Your task to perform on an android device: delete the emails in spam in the gmail app Image 0: 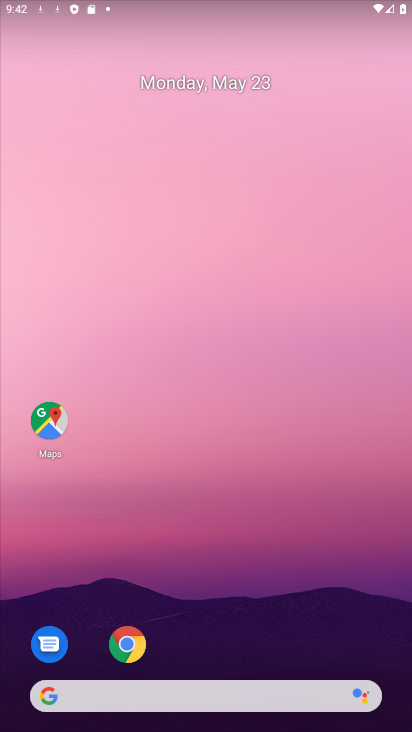
Step 0: drag from (273, 664) to (227, 438)
Your task to perform on an android device: delete the emails in spam in the gmail app Image 1: 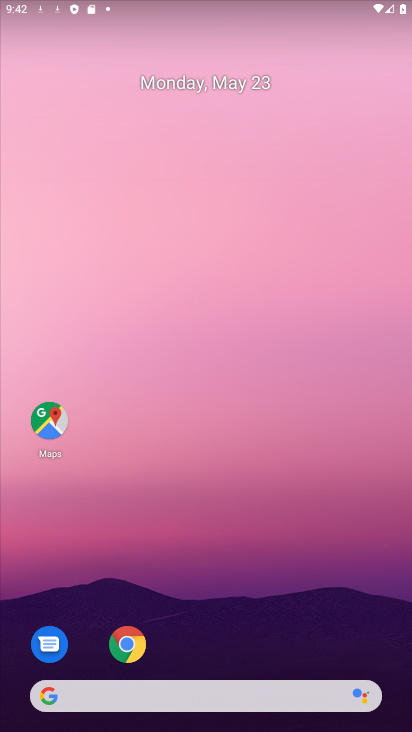
Step 1: drag from (278, 713) to (149, 24)
Your task to perform on an android device: delete the emails in spam in the gmail app Image 2: 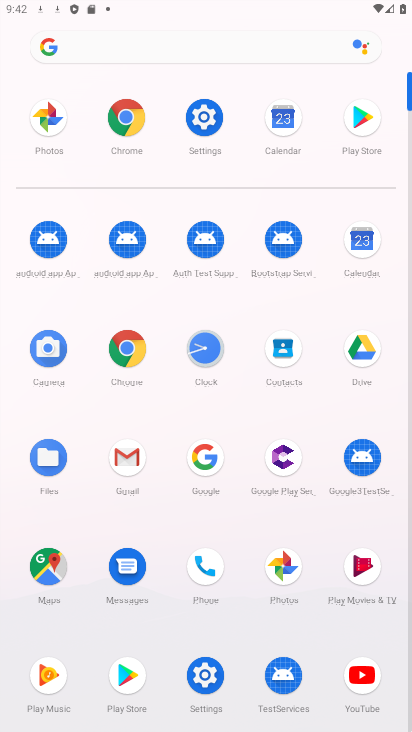
Step 2: click (145, 452)
Your task to perform on an android device: delete the emails in spam in the gmail app Image 3: 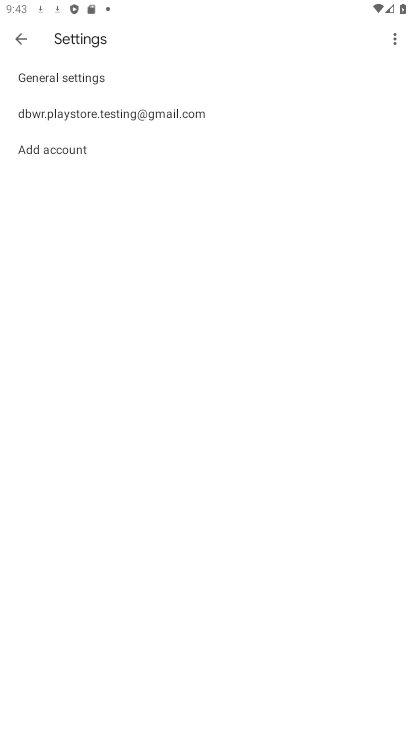
Step 3: click (78, 124)
Your task to perform on an android device: delete the emails in spam in the gmail app Image 4: 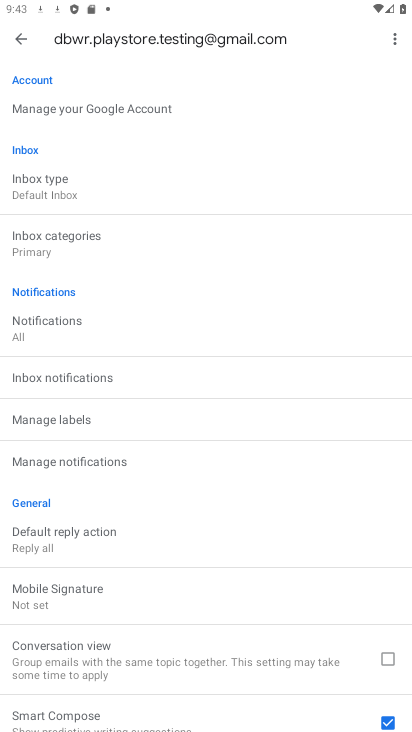
Step 4: click (10, 35)
Your task to perform on an android device: delete the emails in spam in the gmail app Image 5: 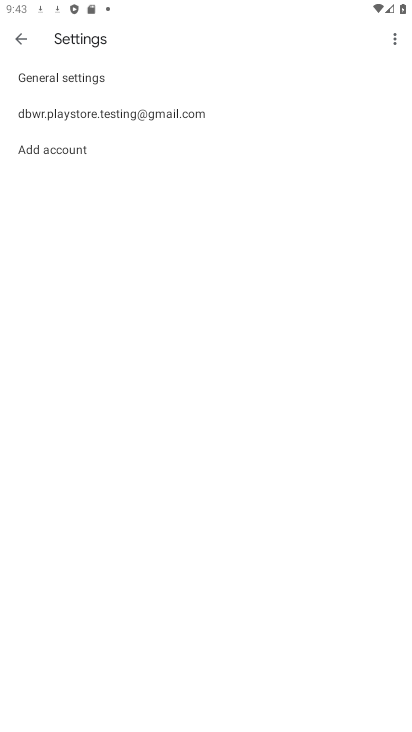
Step 5: click (17, 40)
Your task to perform on an android device: delete the emails in spam in the gmail app Image 6: 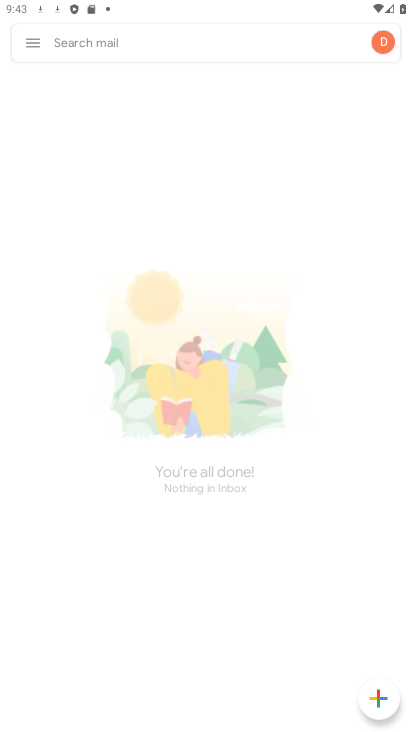
Step 6: click (18, 42)
Your task to perform on an android device: delete the emails in spam in the gmail app Image 7: 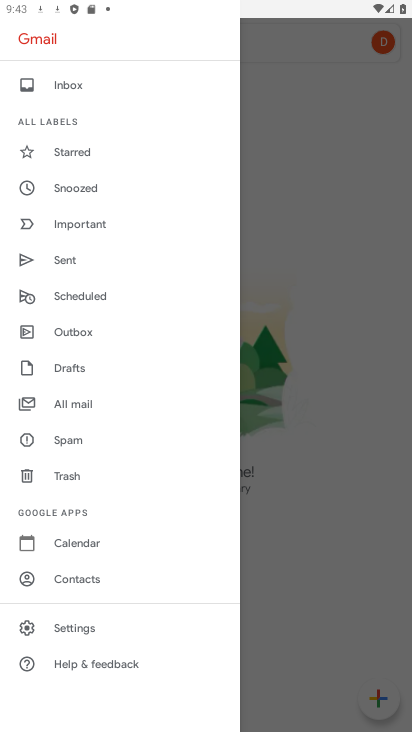
Step 7: click (86, 443)
Your task to perform on an android device: delete the emails in spam in the gmail app Image 8: 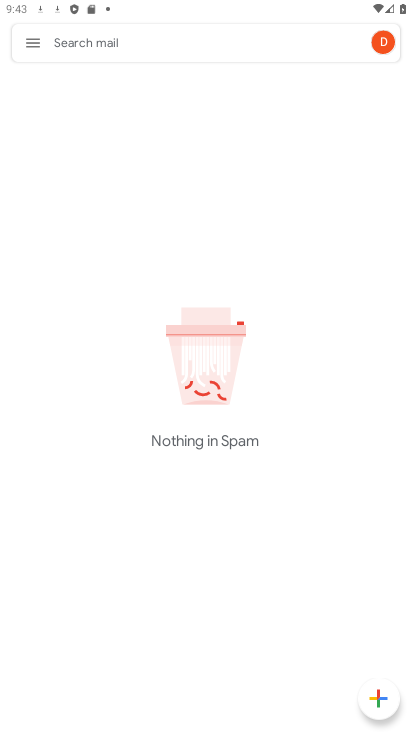
Step 8: task complete